Your task to perform on an android device: change the clock style Image 0: 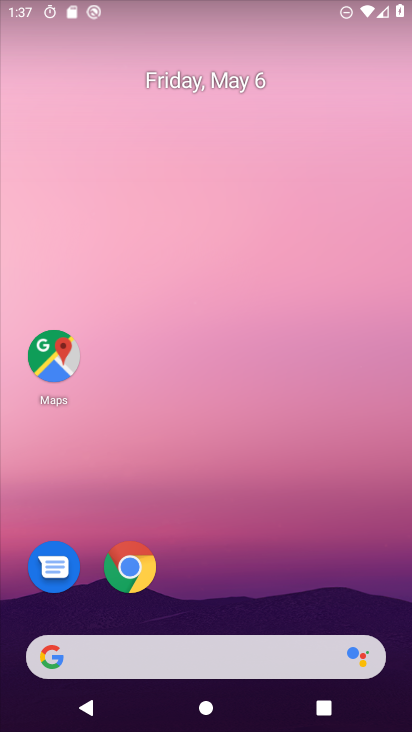
Step 0: drag from (267, 646) to (216, 157)
Your task to perform on an android device: change the clock style Image 1: 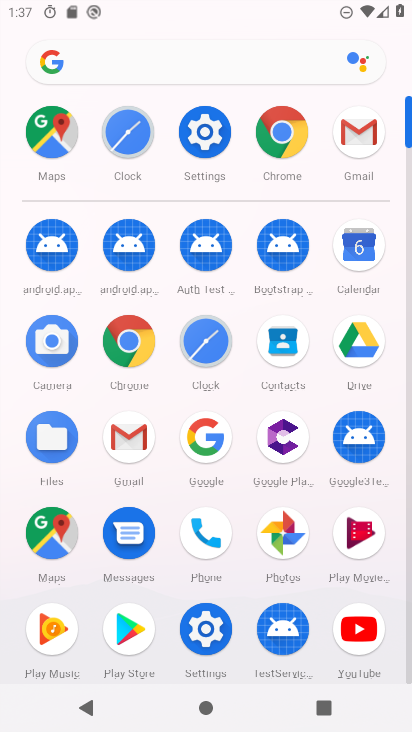
Step 1: click (190, 138)
Your task to perform on an android device: change the clock style Image 2: 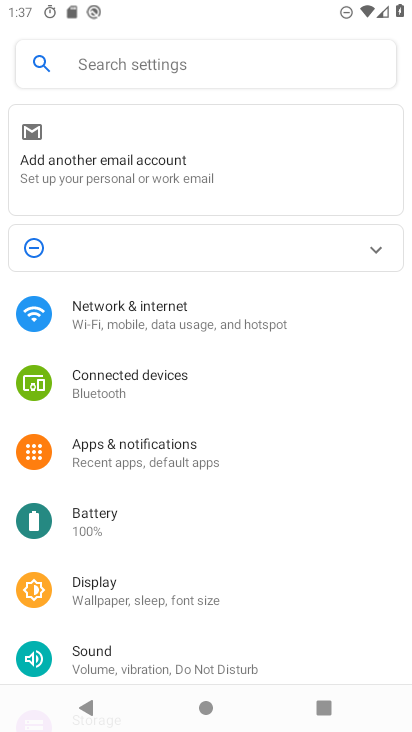
Step 2: press home button
Your task to perform on an android device: change the clock style Image 3: 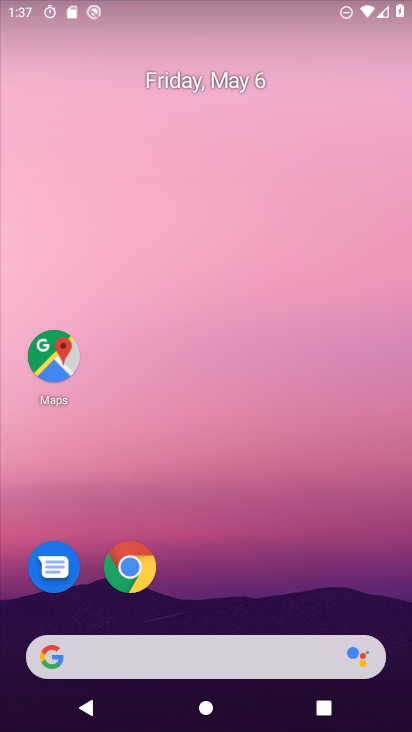
Step 3: drag from (269, 682) to (346, 316)
Your task to perform on an android device: change the clock style Image 4: 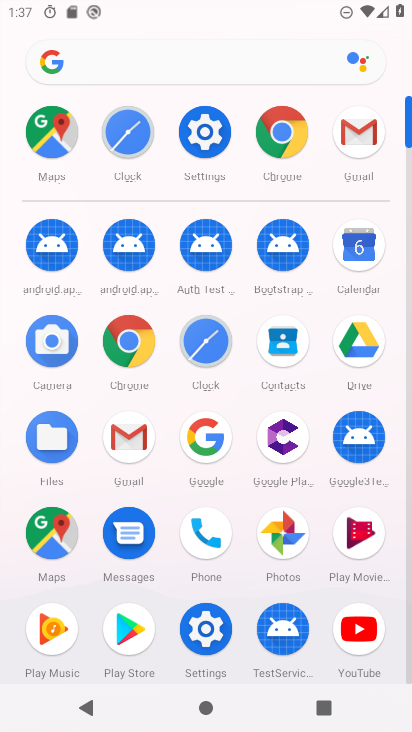
Step 4: click (199, 347)
Your task to perform on an android device: change the clock style Image 5: 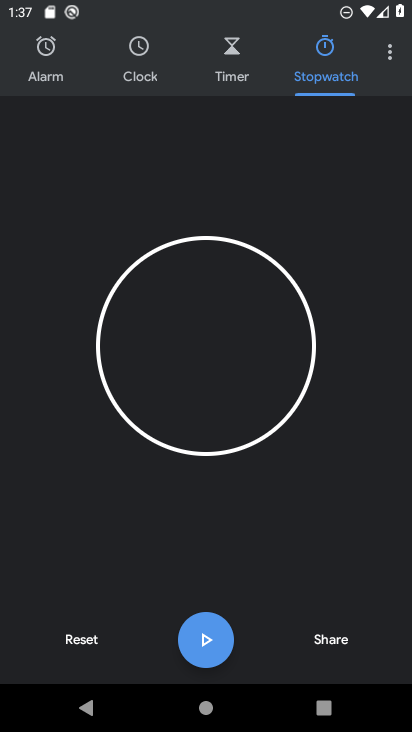
Step 5: click (391, 51)
Your task to perform on an android device: change the clock style Image 6: 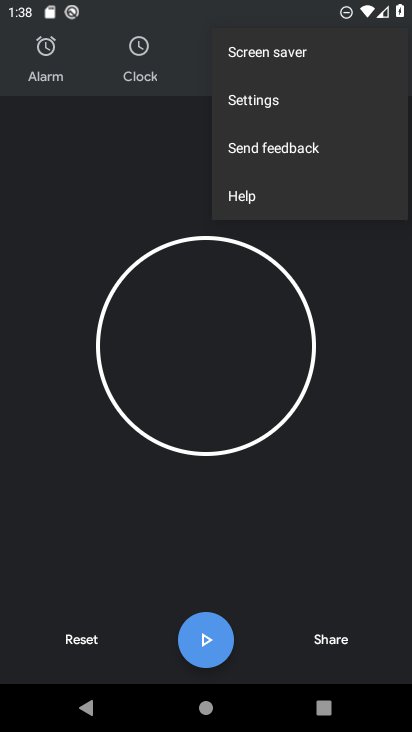
Step 6: click (300, 91)
Your task to perform on an android device: change the clock style Image 7: 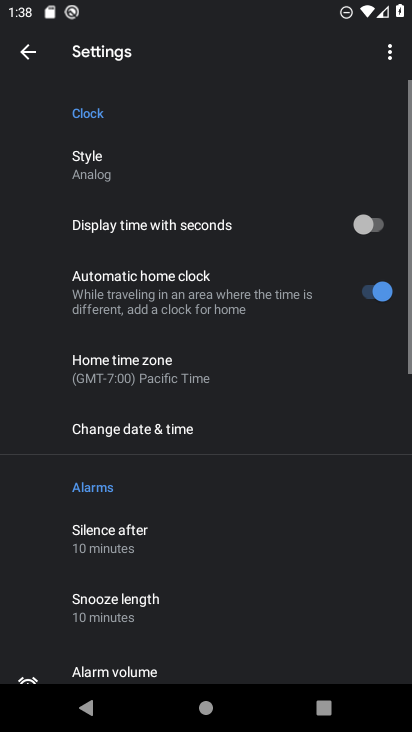
Step 7: click (171, 163)
Your task to perform on an android device: change the clock style Image 8: 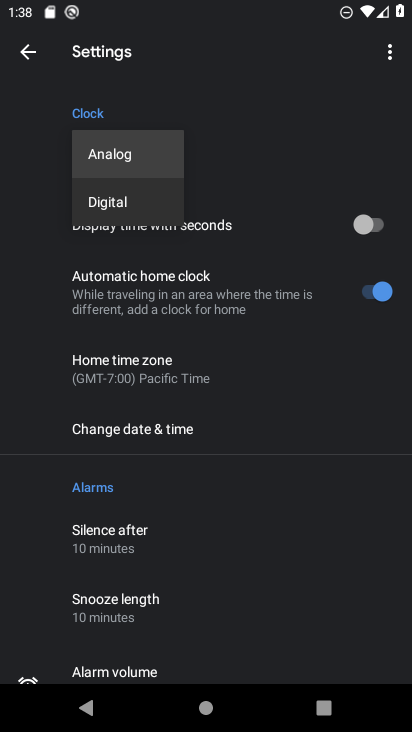
Step 8: click (133, 201)
Your task to perform on an android device: change the clock style Image 9: 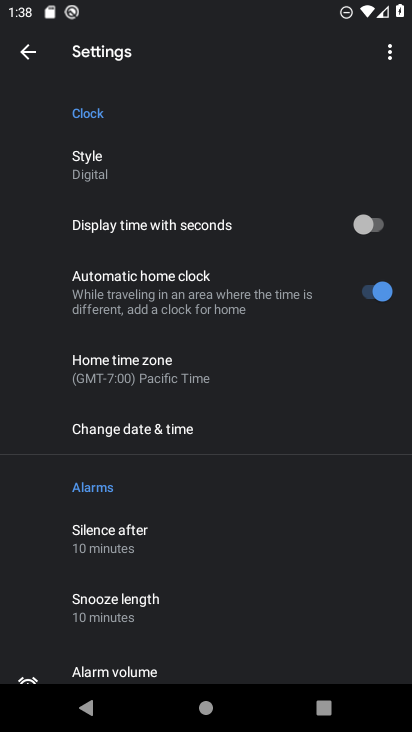
Step 9: task complete